Your task to perform on an android device: find snoozed emails in the gmail app Image 0: 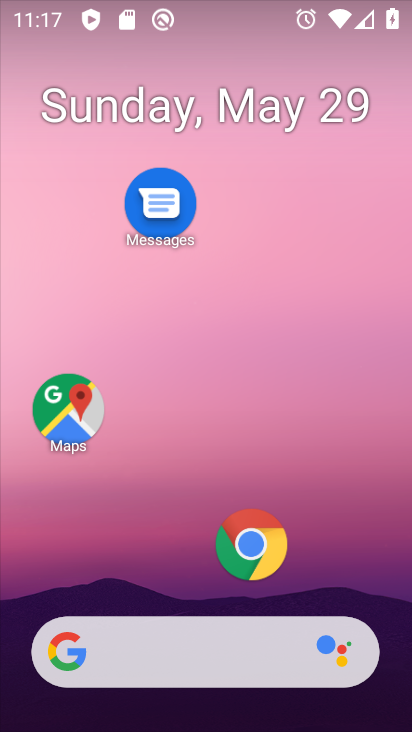
Step 0: press home button
Your task to perform on an android device: find snoozed emails in the gmail app Image 1: 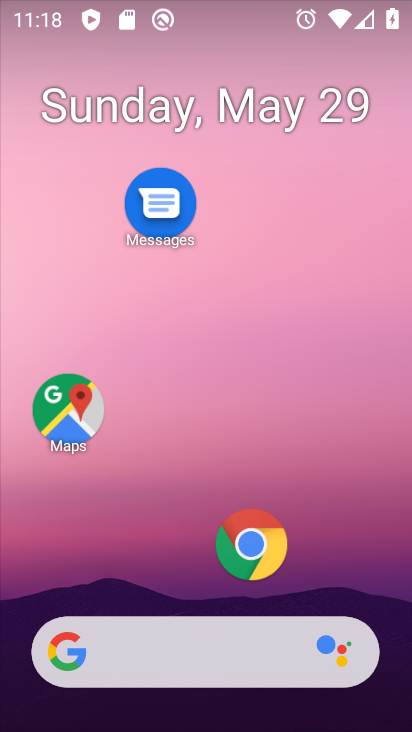
Step 1: drag from (315, 591) to (337, 162)
Your task to perform on an android device: find snoozed emails in the gmail app Image 2: 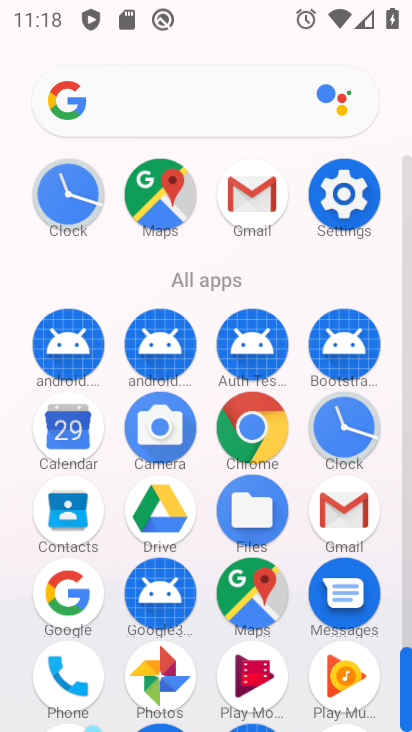
Step 2: click (344, 501)
Your task to perform on an android device: find snoozed emails in the gmail app Image 3: 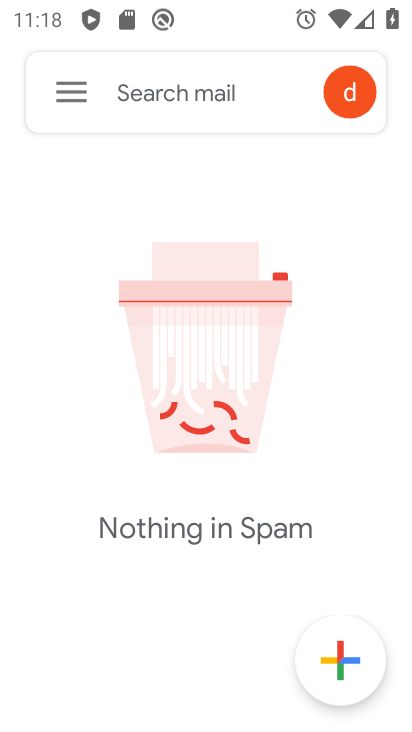
Step 3: click (59, 86)
Your task to perform on an android device: find snoozed emails in the gmail app Image 4: 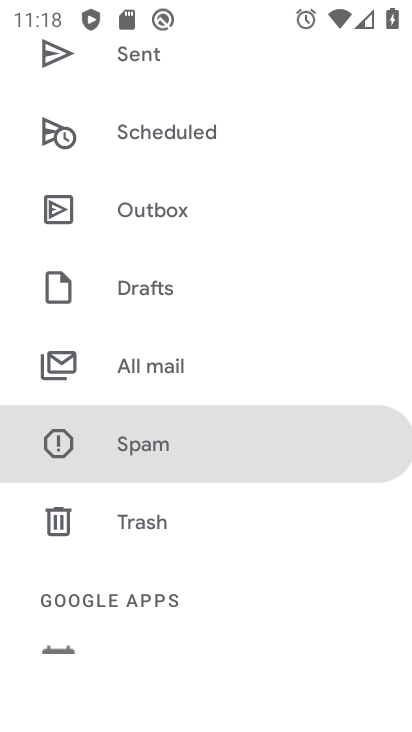
Step 4: drag from (103, 90) to (58, 672)
Your task to perform on an android device: find snoozed emails in the gmail app Image 5: 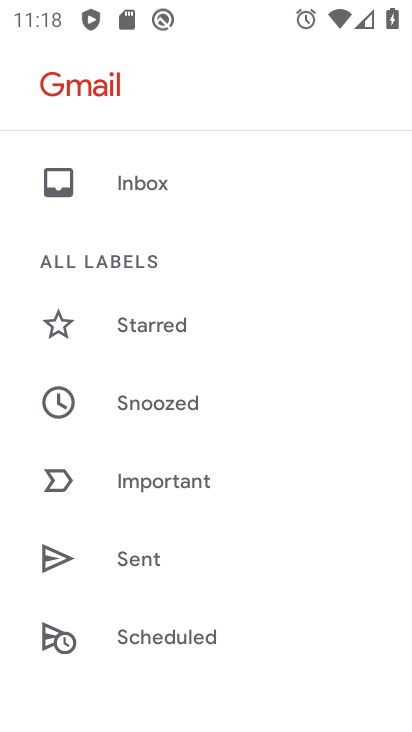
Step 5: click (96, 396)
Your task to perform on an android device: find snoozed emails in the gmail app Image 6: 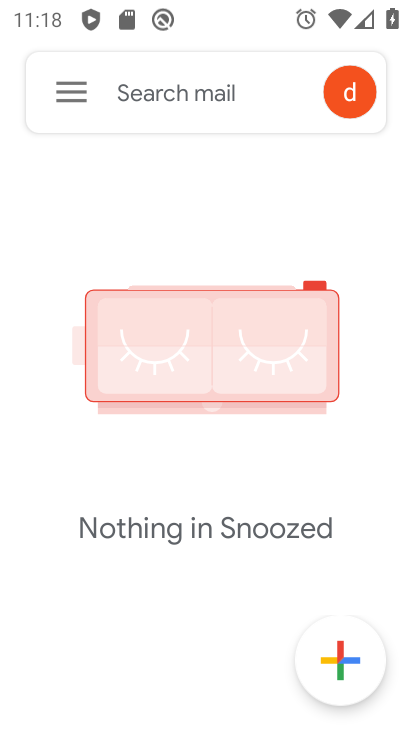
Step 6: task complete